Your task to perform on an android device: Search for sushi restaurants on Maps Image 0: 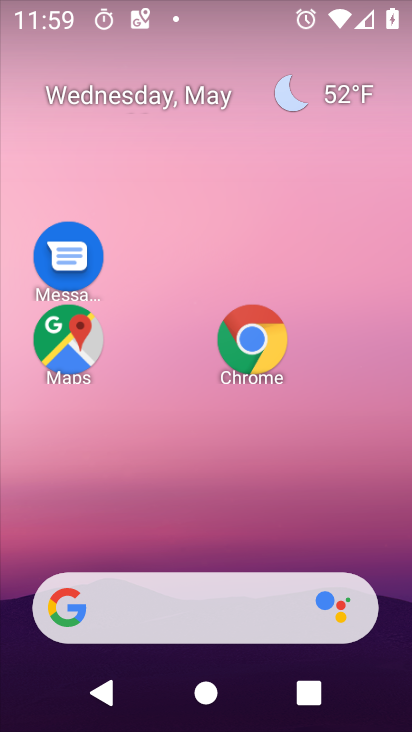
Step 0: click (193, 531)
Your task to perform on an android device: Search for sushi restaurants on Maps Image 1: 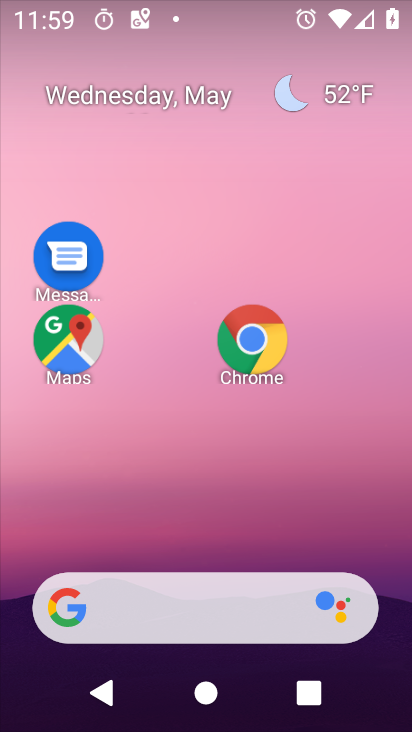
Step 1: click (74, 346)
Your task to perform on an android device: Search for sushi restaurants on Maps Image 2: 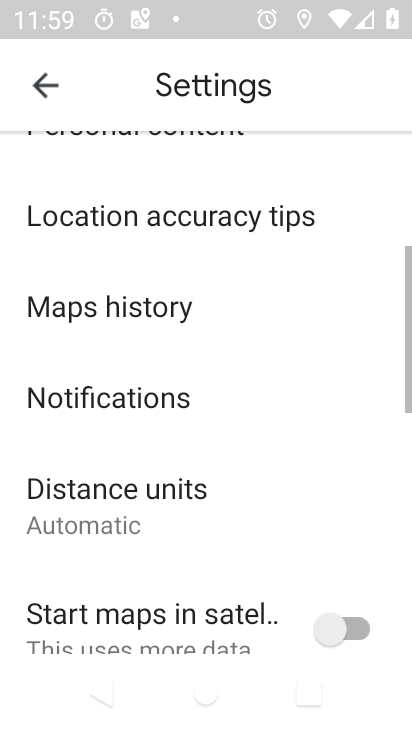
Step 2: drag from (206, 242) to (291, 589)
Your task to perform on an android device: Search for sushi restaurants on Maps Image 3: 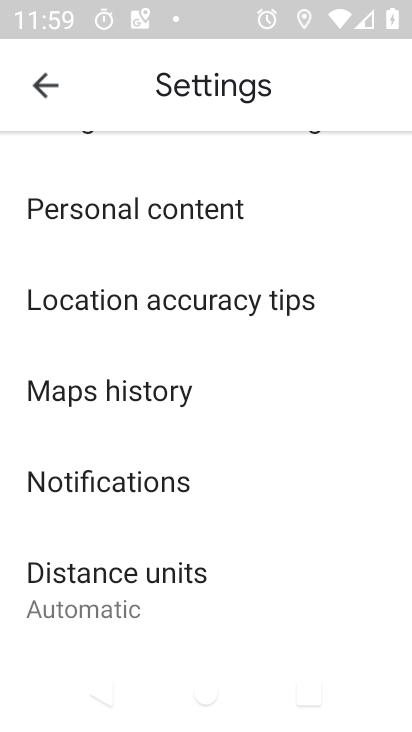
Step 3: press back button
Your task to perform on an android device: Search for sushi restaurants on Maps Image 4: 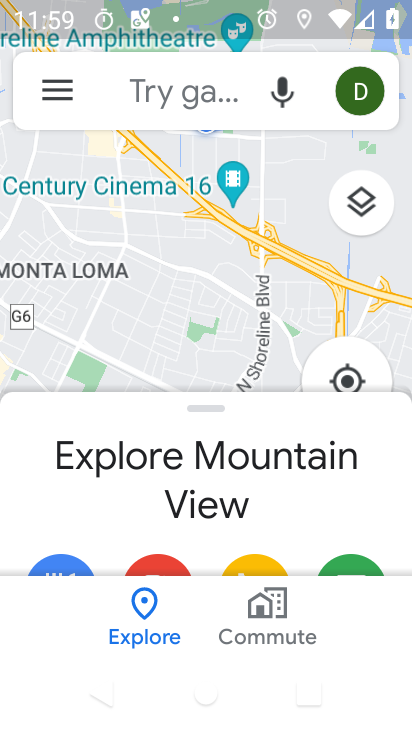
Step 4: click (178, 102)
Your task to perform on an android device: Search for sushi restaurants on Maps Image 5: 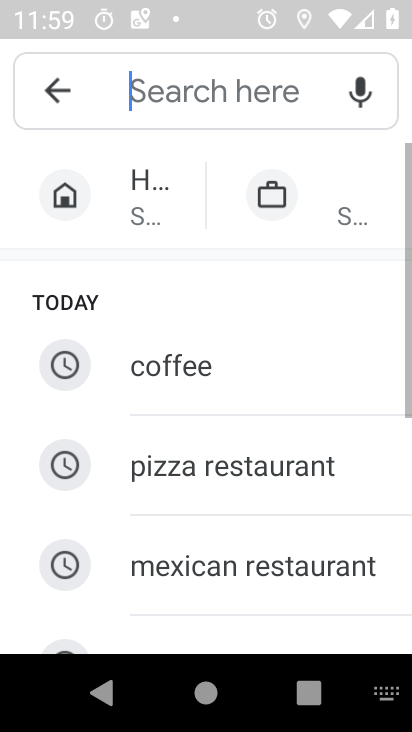
Step 5: drag from (250, 520) to (254, 232)
Your task to perform on an android device: Search for sushi restaurants on Maps Image 6: 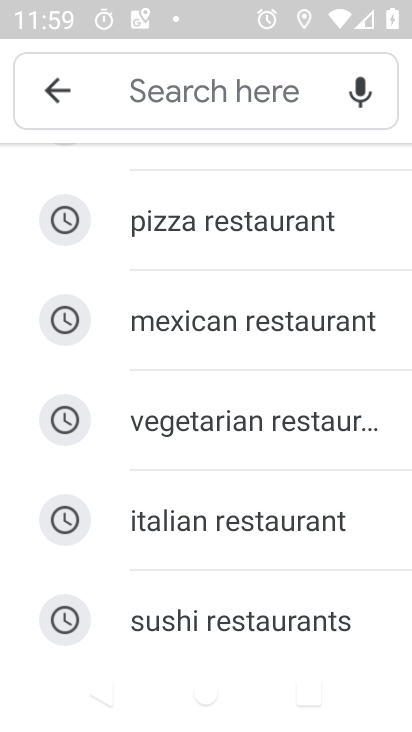
Step 6: drag from (215, 529) to (217, 349)
Your task to perform on an android device: Search for sushi restaurants on Maps Image 7: 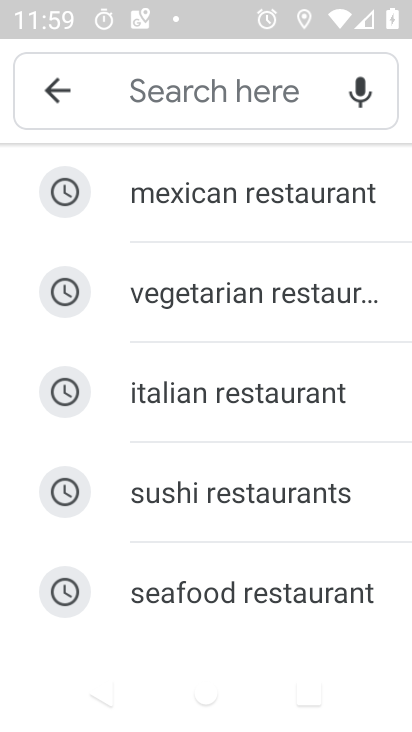
Step 7: click (215, 490)
Your task to perform on an android device: Search for sushi restaurants on Maps Image 8: 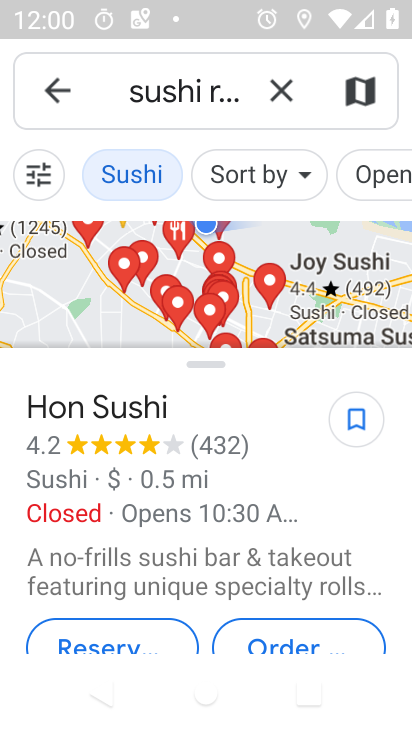
Step 8: task complete